Your task to perform on an android device: Go to CNN.com Image 0: 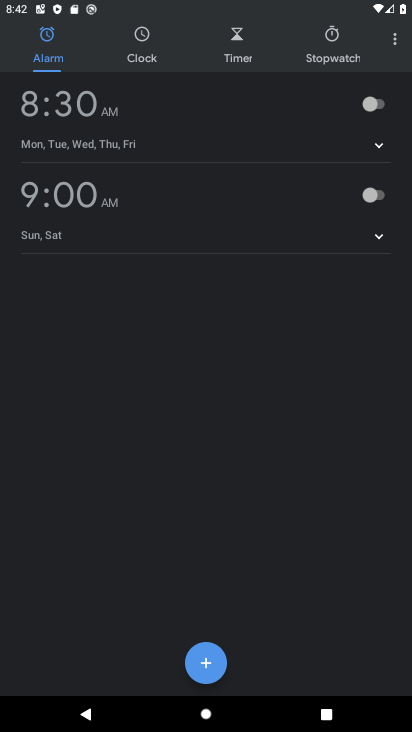
Step 0: press home button
Your task to perform on an android device: Go to CNN.com Image 1: 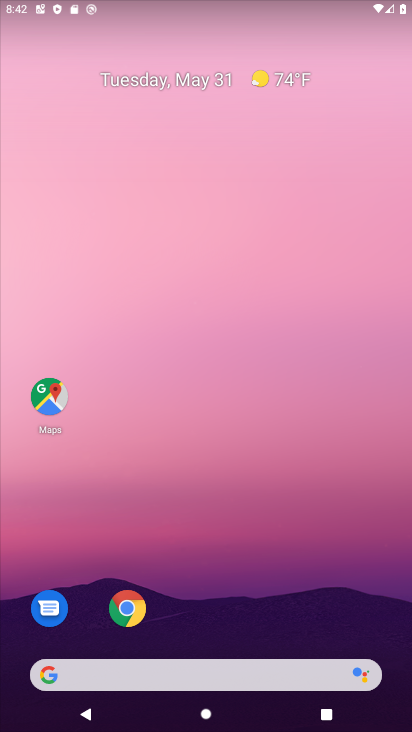
Step 1: click (127, 623)
Your task to perform on an android device: Go to CNN.com Image 2: 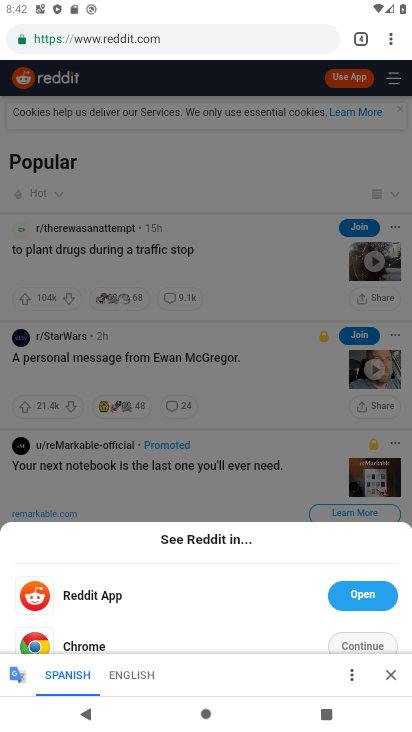
Step 2: click (366, 38)
Your task to perform on an android device: Go to CNN.com Image 3: 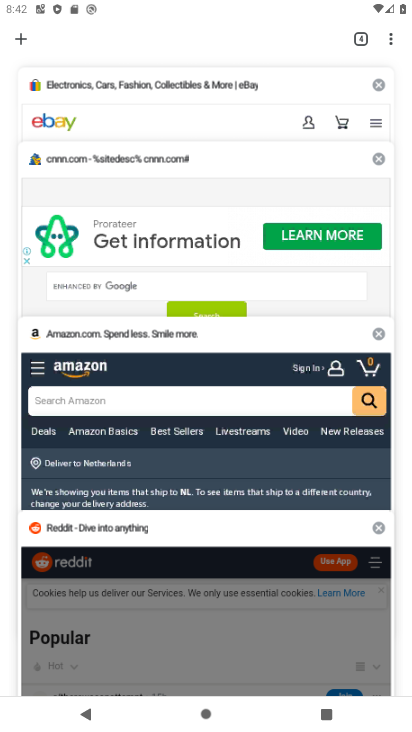
Step 3: click (20, 40)
Your task to perform on an android device: Go to CNN.com Image 4: 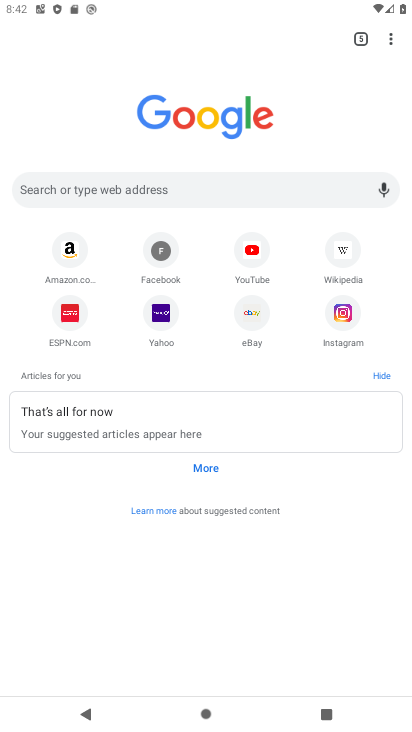
Step 4: click (123, 183)
Your task to perform on an android device: Go to CNN.com Image 5: 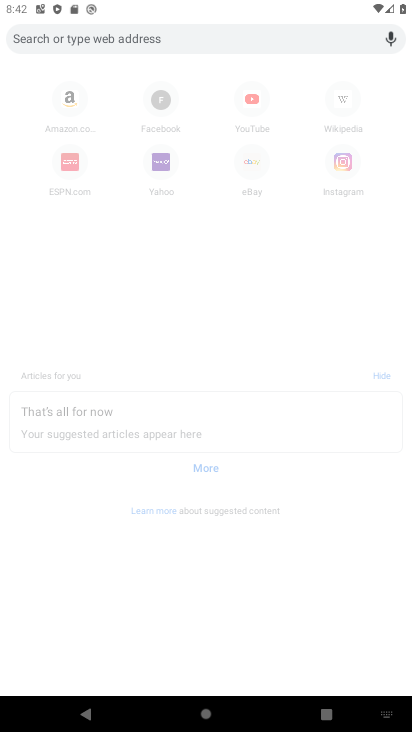
Step 5: type "cnn"
Your task to perform on an android device: Go to CNN.com Image 6: 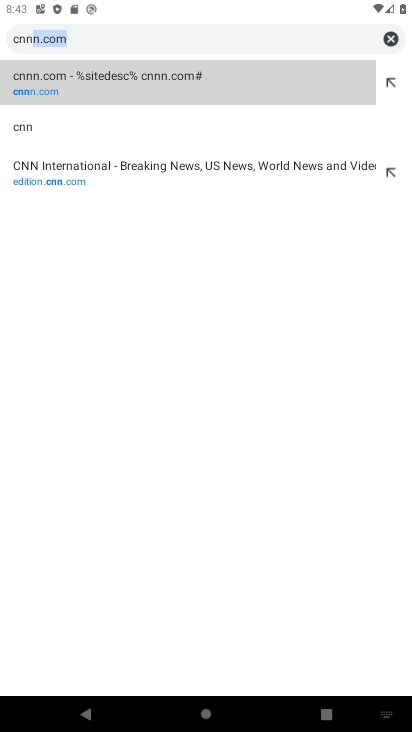
Step 6: click (61, 192)
Your task to perform on an android device: Go to CNN.com Image 7: 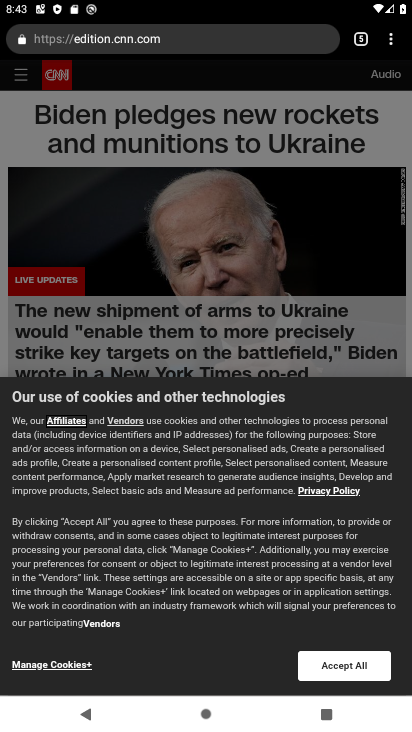
Step 7: task complete